Your task to perform on an android device: Go to eBay Image 0: 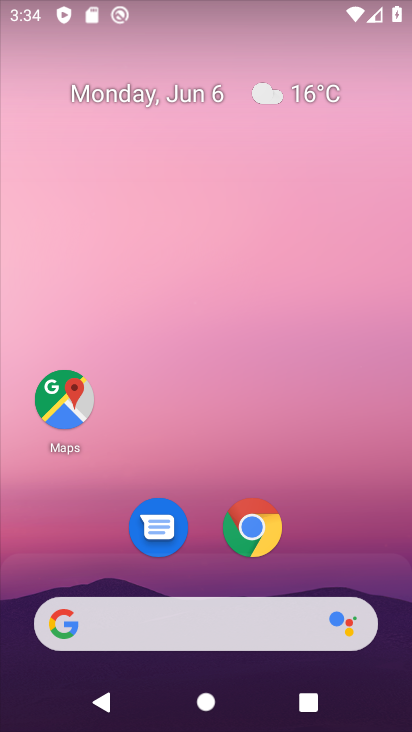
Step 0: click (266, 533)
Your task to perform on an android device: Go to eBay Image 1: 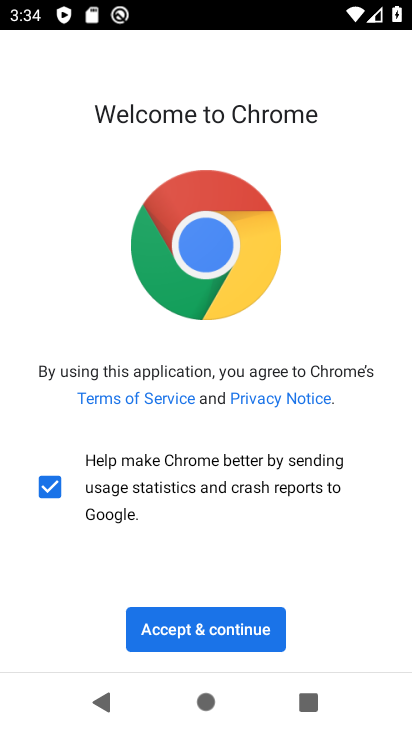
Step 1: click (171, 634)
Your task to perform on an android device: Go to eBay Image 2: 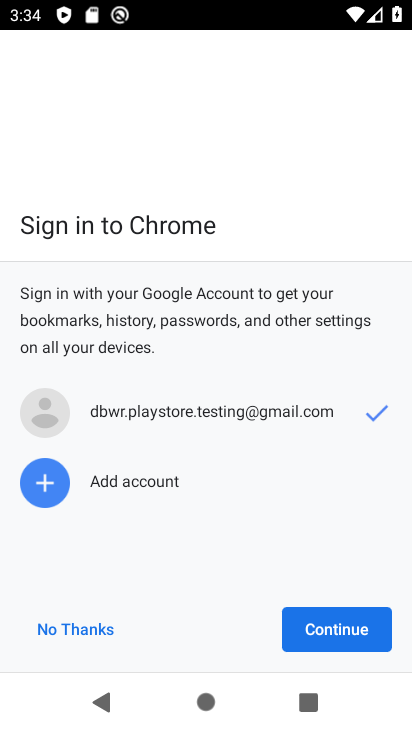
Step 2: click (313, 640)
Your task to perform on an android device: Go to eBay Image 3: 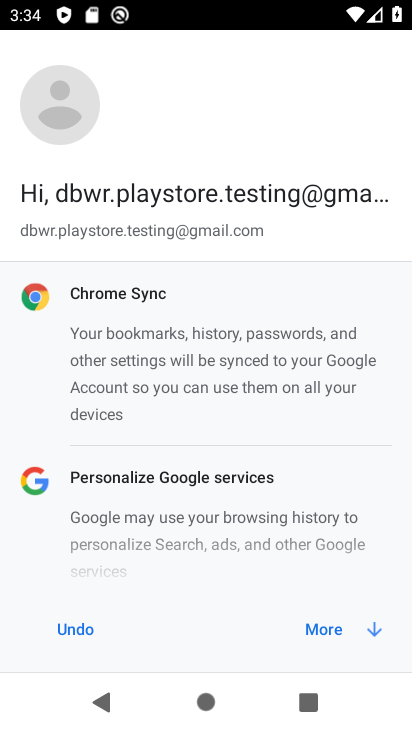
Step 3: click (314, 639)
Your task to perform on an android device: Go to eBay Image 4: 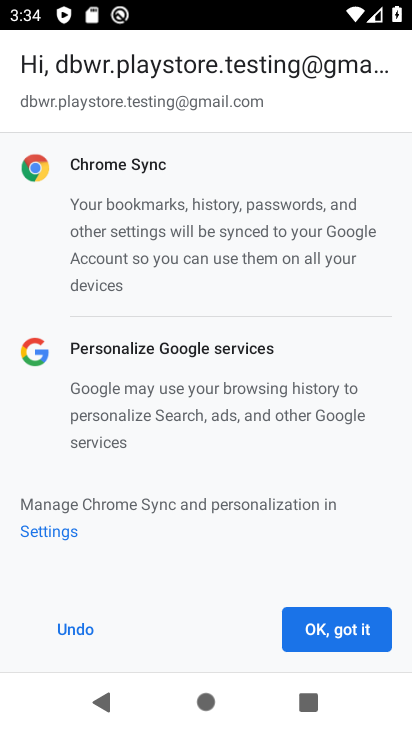
Step 4: click (330, 629)
Your task to perform on an android device: Go to eBay Image 5: 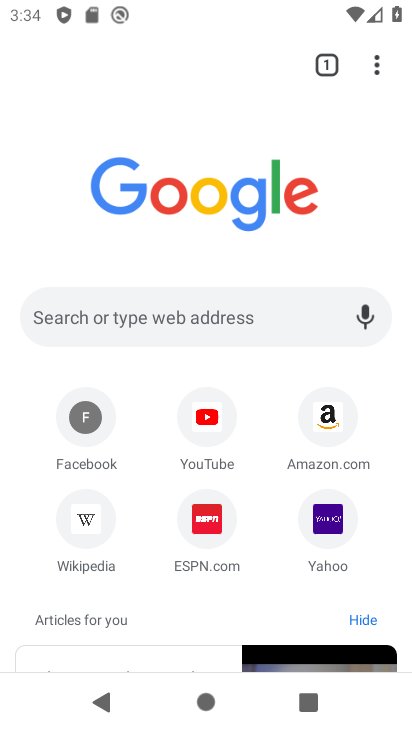
Step 5: click (162, 333)
Your task to perform on an android device: Go to eBay Image 6: 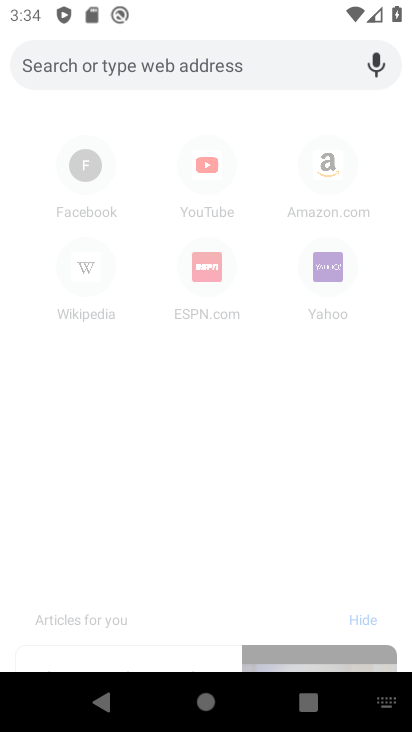
Step 6: type "eBay"
Your task to perform on an android device: Go to eBay Image 7: 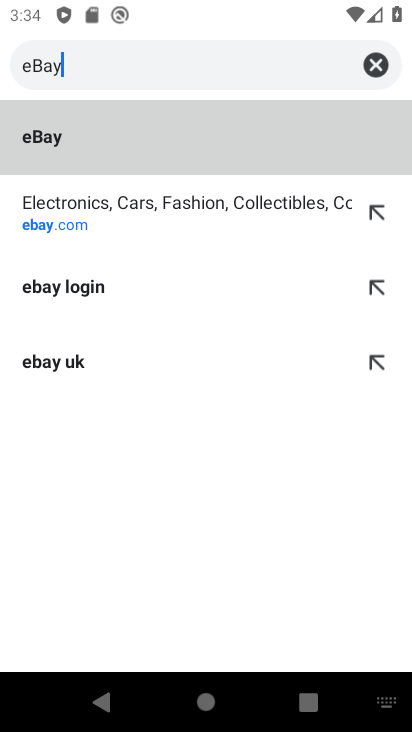
Step 7: click (178, 228)
Your task to perform on an android device: Go to eBay Image 8: 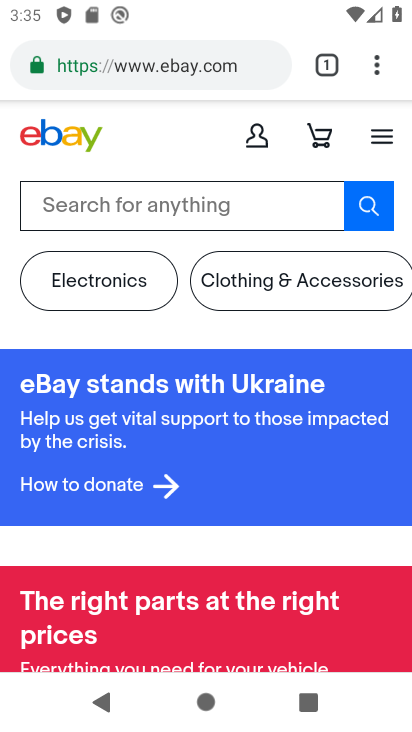
Step 8: task complete